Your task to perform on an android device: Open ESPN.com Image 0: 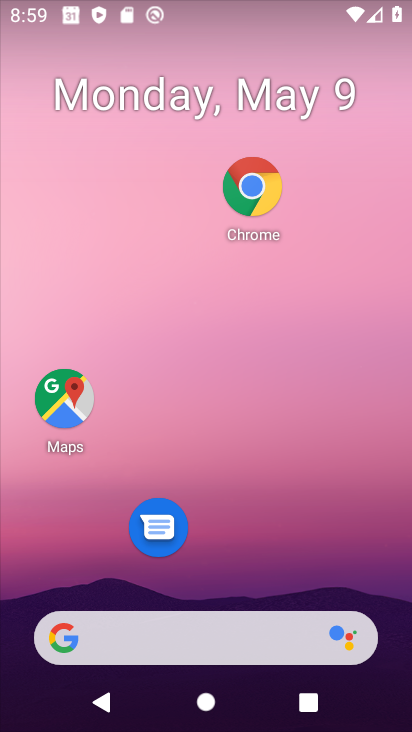
Step 0: click (248, 179)
Your task to perform on an android device: Open ESPN.com Image 1: 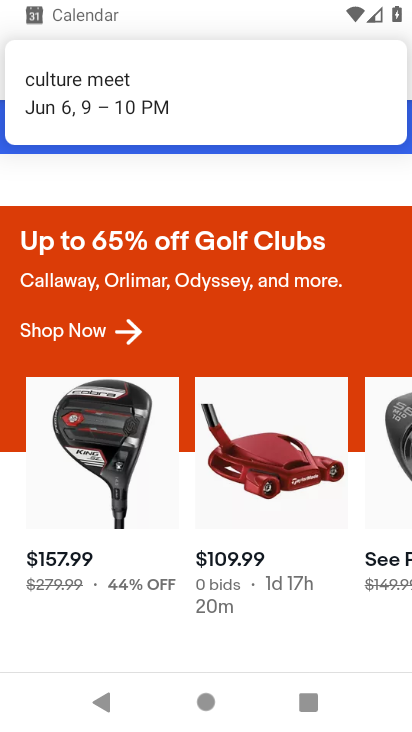
Step 1: drag from (187, 546) to (202, 252)
Your task to perform on an android device: Open ESPN.com Image 2: 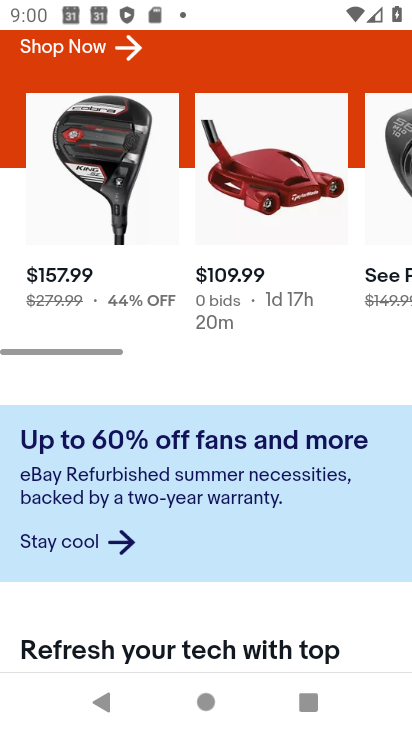
Step 2: drag from (206, 311) to (234, 552)
Your task to perform on an android device: Open ESPN.com Image 3: 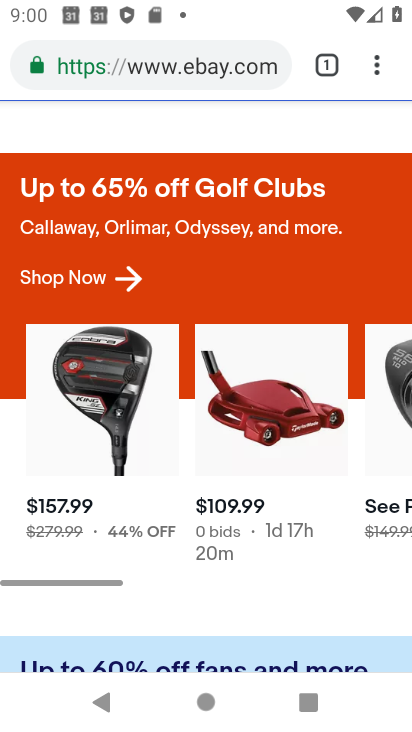
Step 3: click (319, 67)
Your task to perform on an android device: Open ESPN.com Image 4: 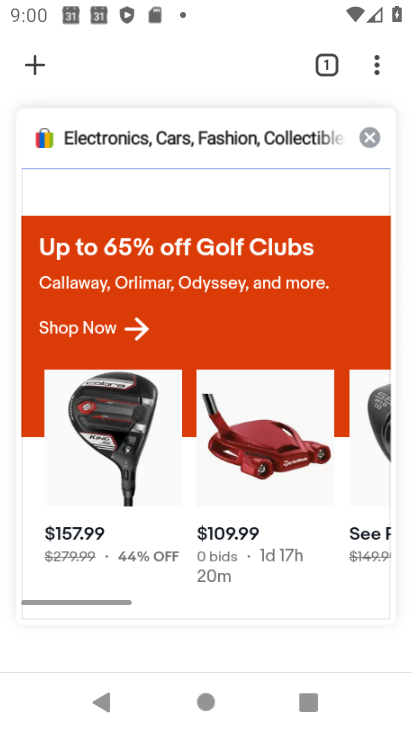
Step 4: click (367, 136)
Your task to perform on an android device: Open ESPN.com Image 5: 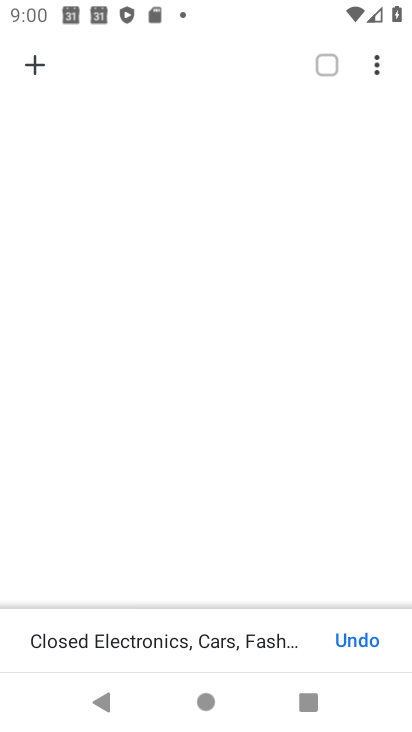
Step 5: click (39, 58)
Your task to perform on an android device: Open ESPN.com Image 6: 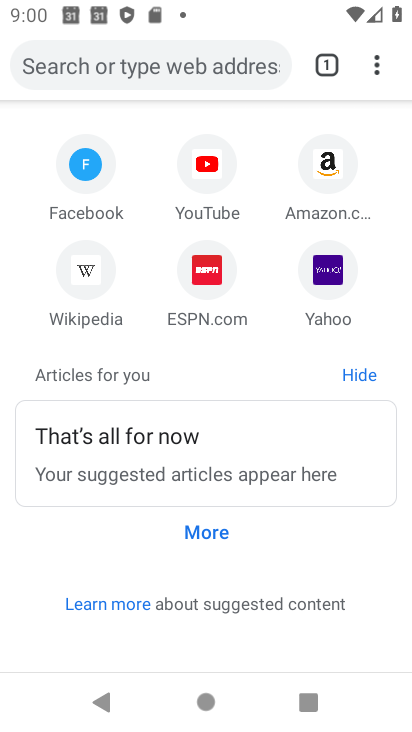
Step 6: click (198, 284)
Your task to perform on an android device: Open ESPN.com Image 7: 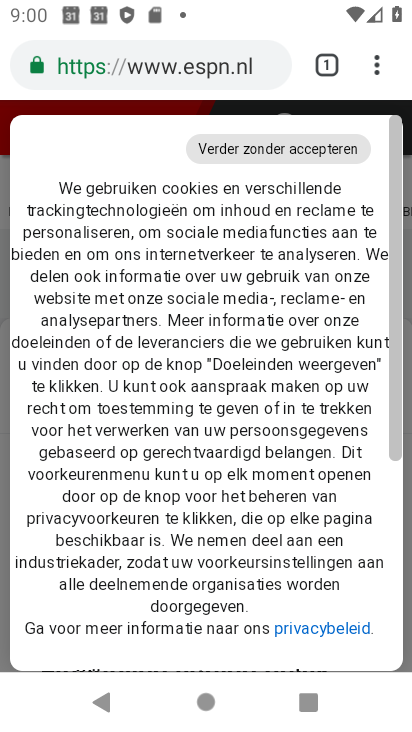
Step 7: drag from (254, 601) to (249, 283)
Your task to perform on an android device: Open ESPN.com Image 8: 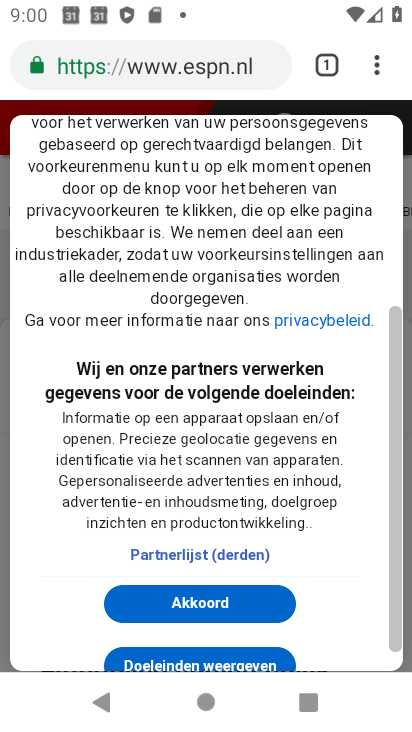
Step 8: click (208, 597)
Your task to perform on an android device: Open ESPN.com Image 9: 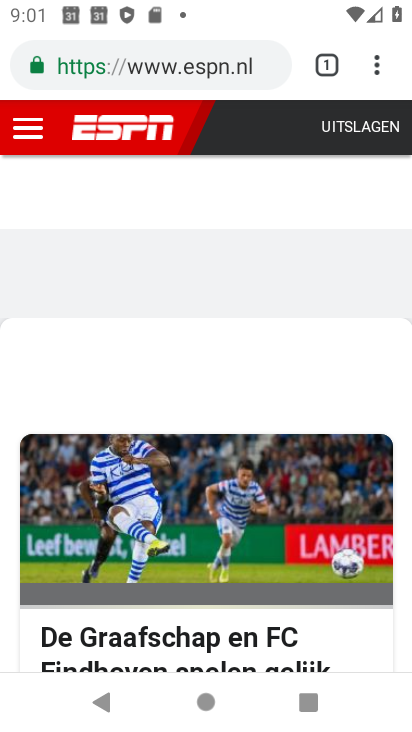
Step 9: task complete